Your task to perform on an android device: see sites visited before in the chrome app Image 0: 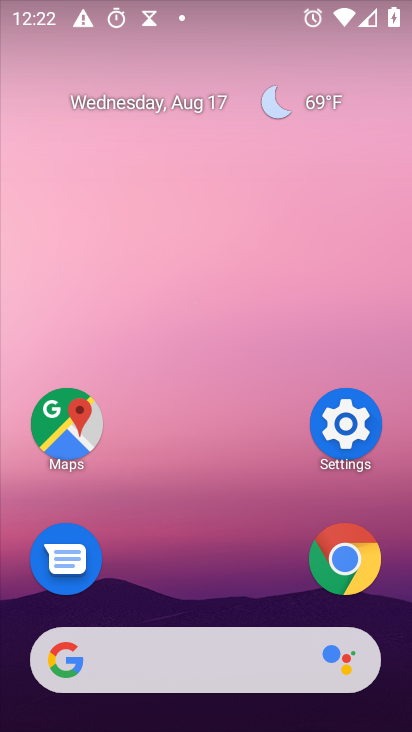
Step 0: click (341, 554)
Your task to perform on an android device: see sites visited before in the chrome app Image 1: 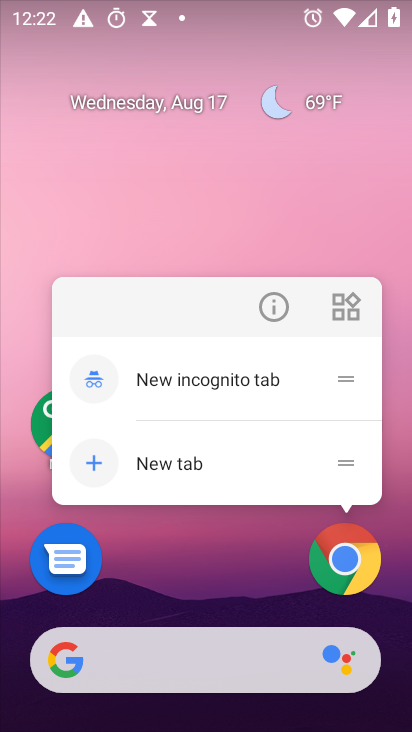
Step 1: click (341, 555)
Your task to perform on an android device: see sites visited before in the chrome app Image 2: 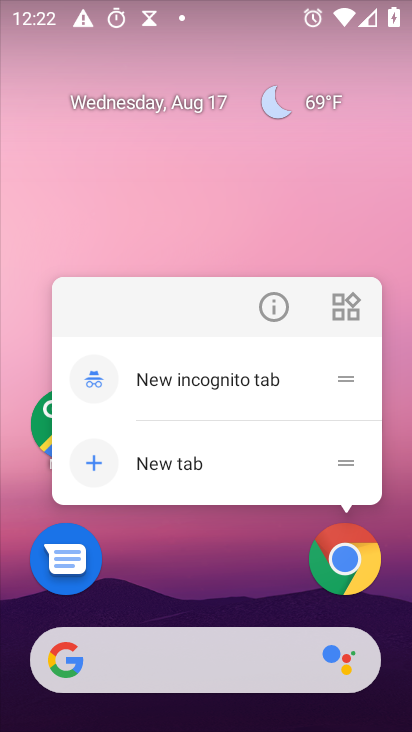
Step 2: click (348, 570)
Your task to perform on an android device: see sites visited before in the chrome app Image 3: 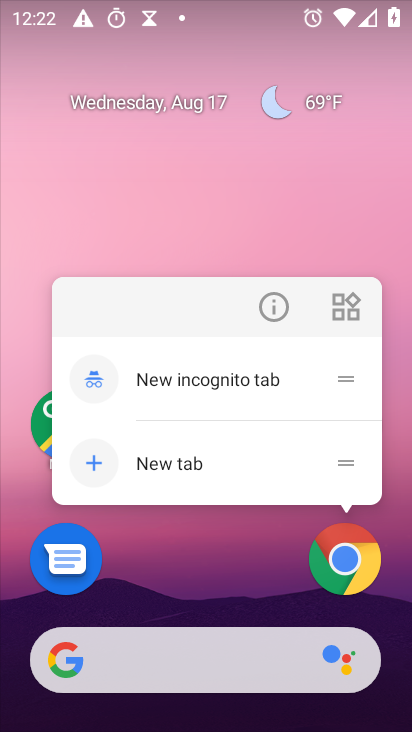
Step 3: click (348, 567)
Your task to perform on an android device: see sites visited before in the chrome app Image 4: 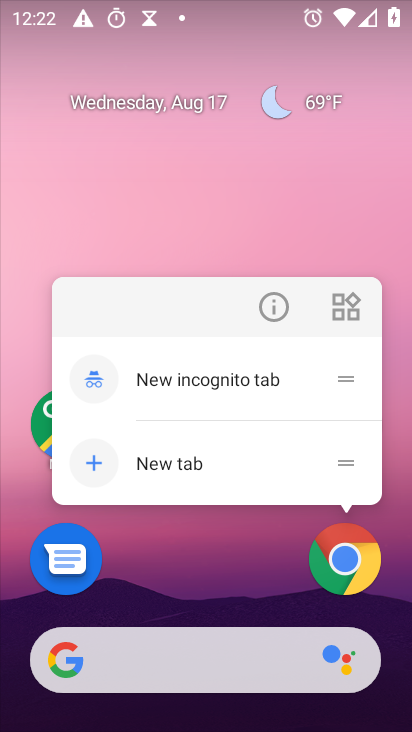
Step 4: click (347, 559)
Your task to perform on an android device: see sites visited before in the chrome app Image 5: 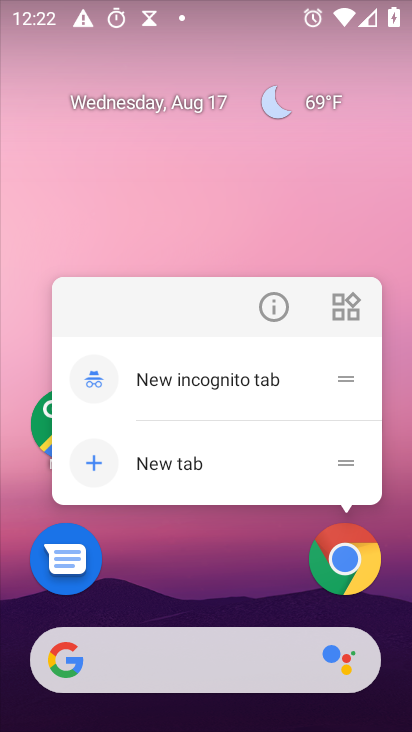
Step 5: click (340, 548)
Your task to perform on an android device: see sites visited before in the chrome app Image 6: 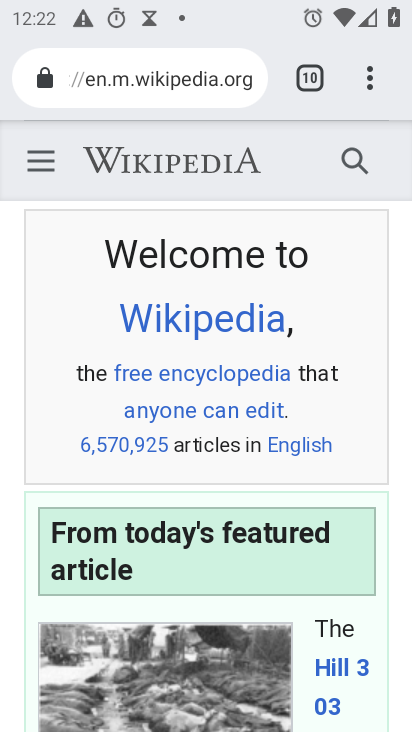
Step 6: task complete